Your task to perform on an android device: Search for "razer naga" on bestbuy, select the first entry, add it to the cart, then select checkout. Image 0: 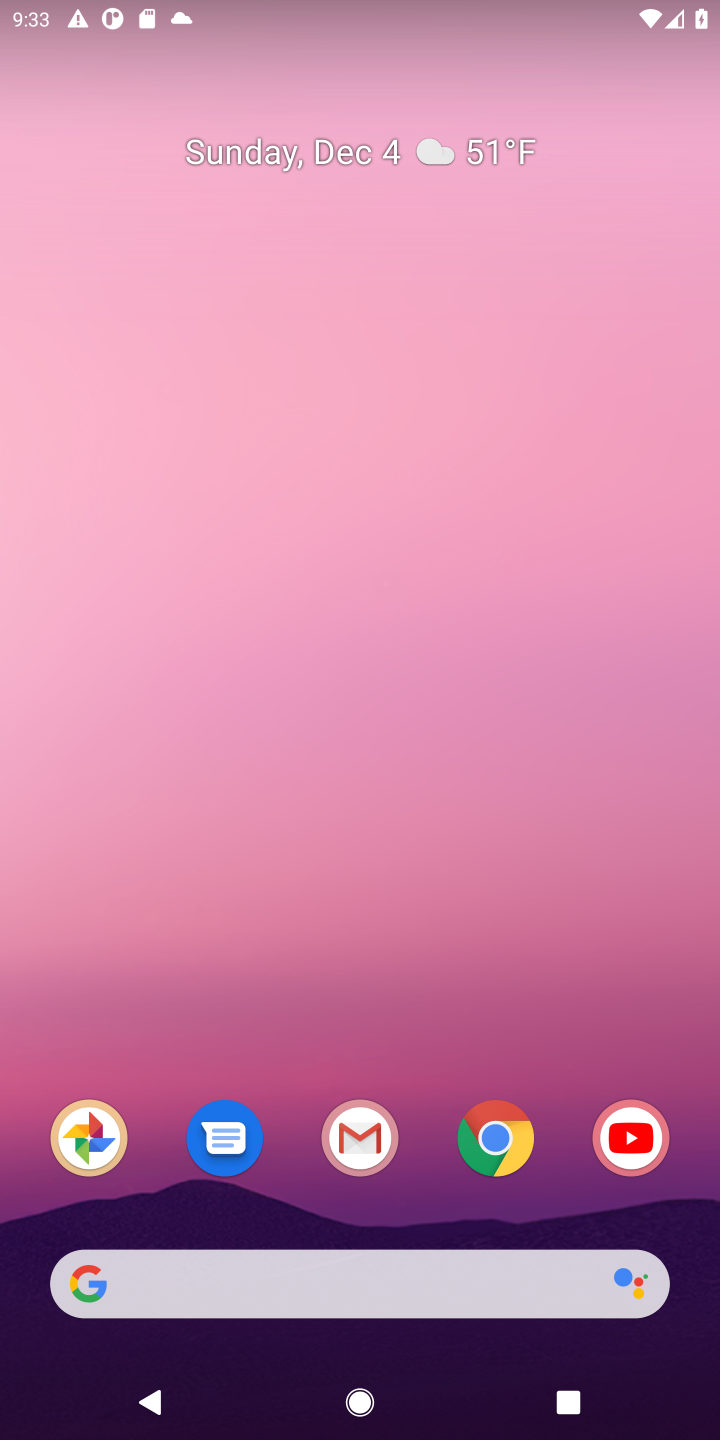
Step 0: click (480, 1133)
Your task to perform on an android device: Search for "razer naga" on bestbuy, select the first entry, add it to the cart, then select checkout. Image 1: 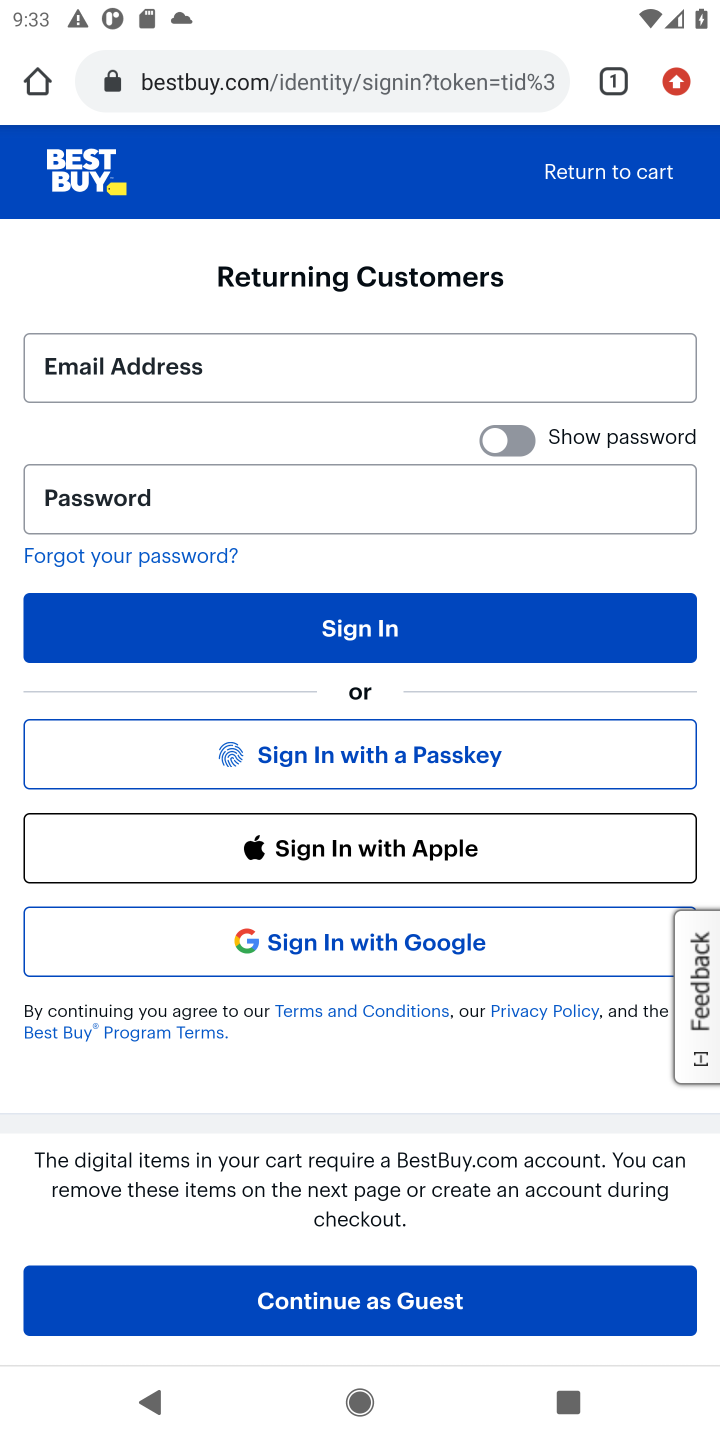
Step 1: press back button
Your task to perform on an android device: Search for "razer naga" on bestbuy, select the first entry, add it to the cart, then select checkout. Image 2: 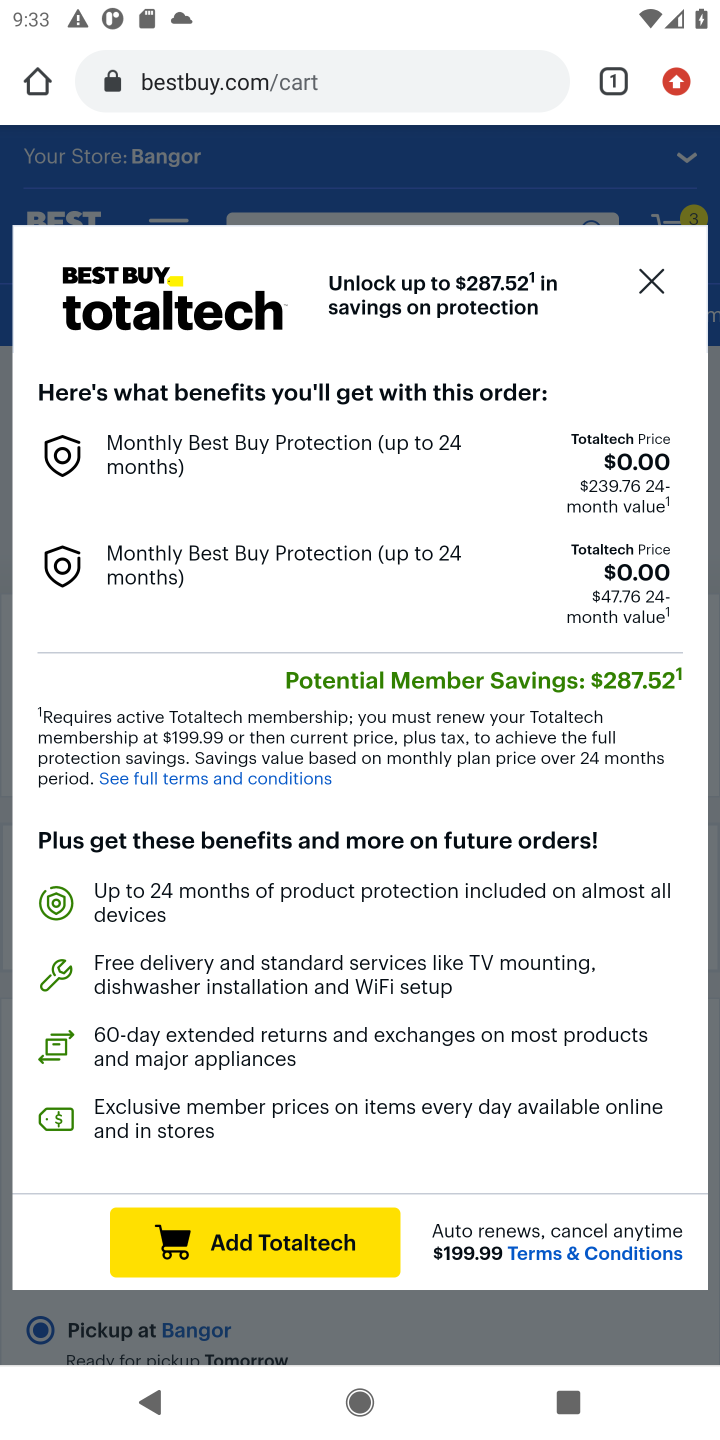
Step 2: click (652, 274)
Your task to perform on an android device: Search for "razer naga" on bestbuy, select the first entry, add it to the cart, then select checkout. Image 3: 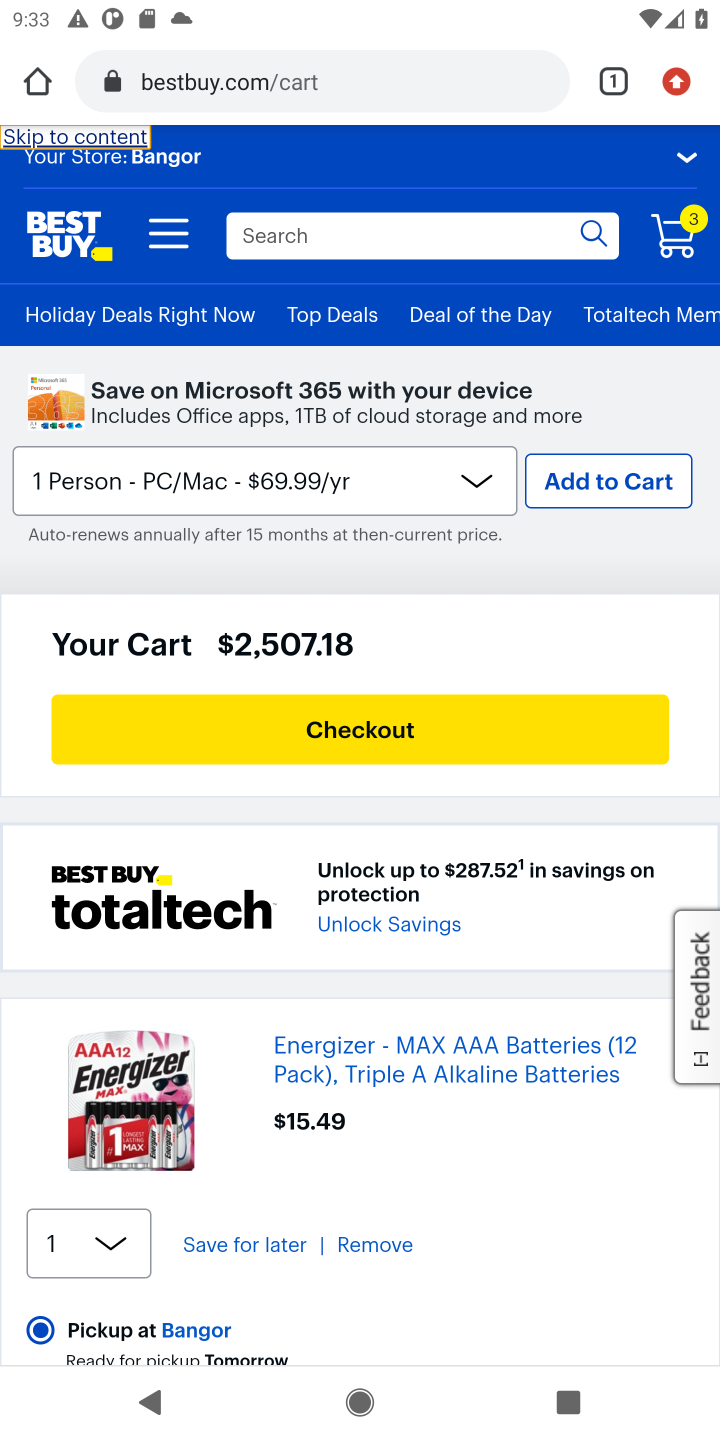
Step 3: click (455, 236)
Your task to perform on an android device: Search for "razer naga" on bestbuy, select the first entry, add it to the cart, then select checkout. Image 4: 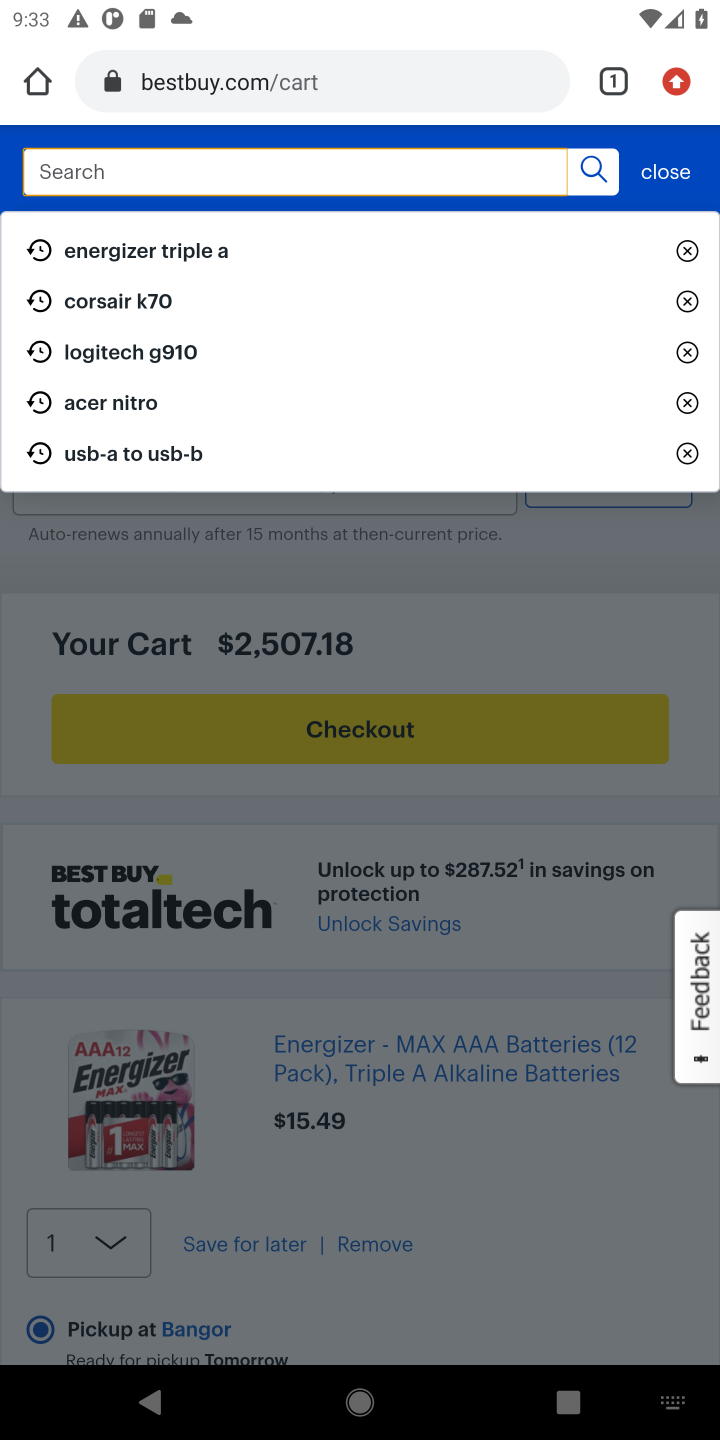
Step 4: type "razer naga"
Your task to perform on an android device: Search for "razer naga" on bestbuy, select the first entry, add it to the cart, then select checkout. Image 5: 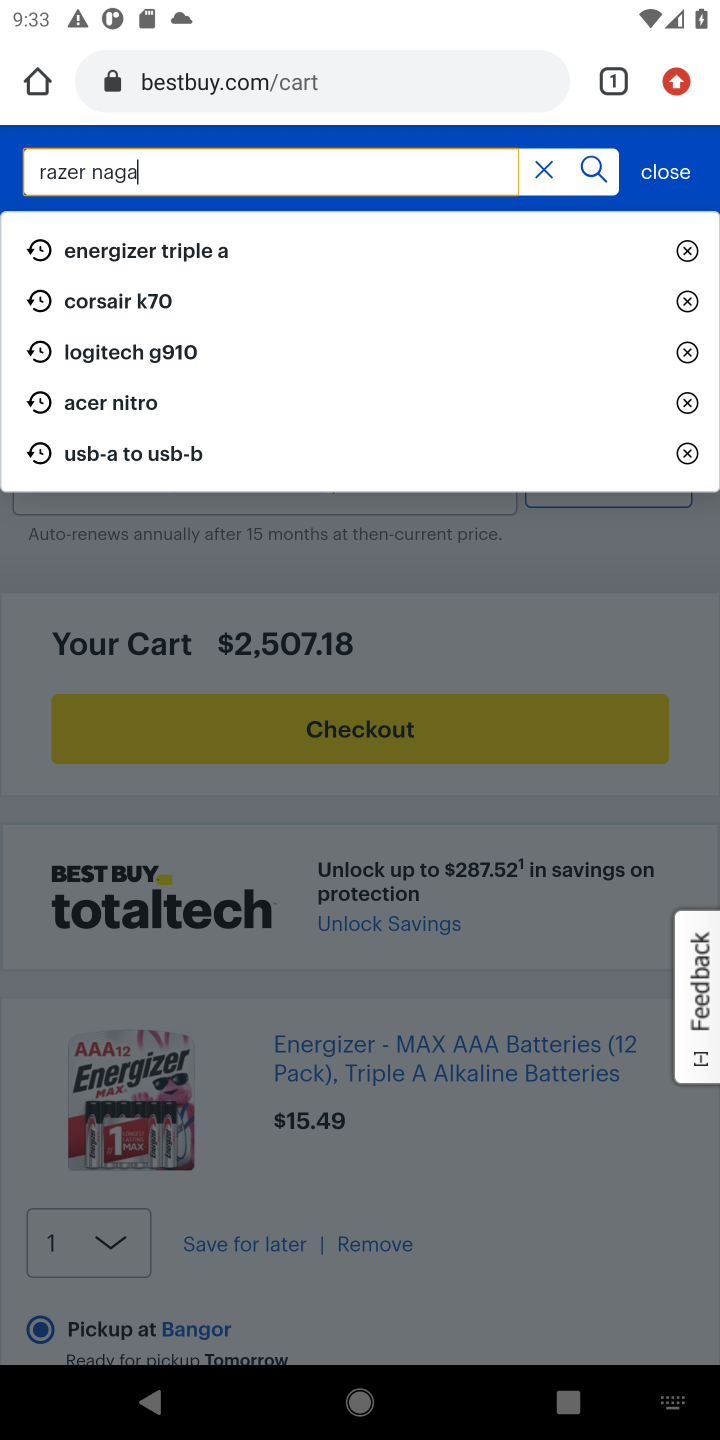
Step 5: press enter
Your task to perform on an android device: Search for "razer naga" on bestbuy, select the first entry, add it to the cart, then select checkout. Image 6: 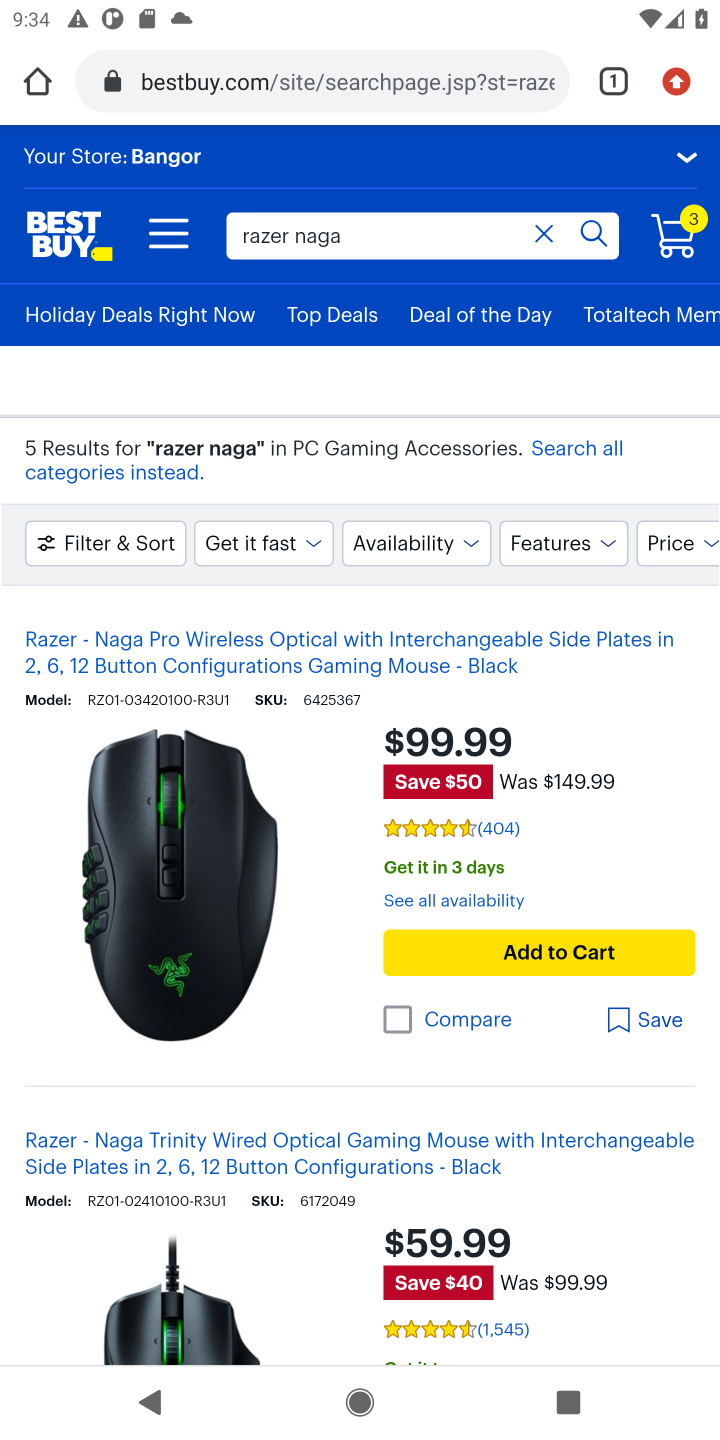
Step 6: click (111, 878)
Your task to perform on an android device: Search for "razer naga" on bestbuy, select the first entry, add it to the cart, then select checkout. Image 7: 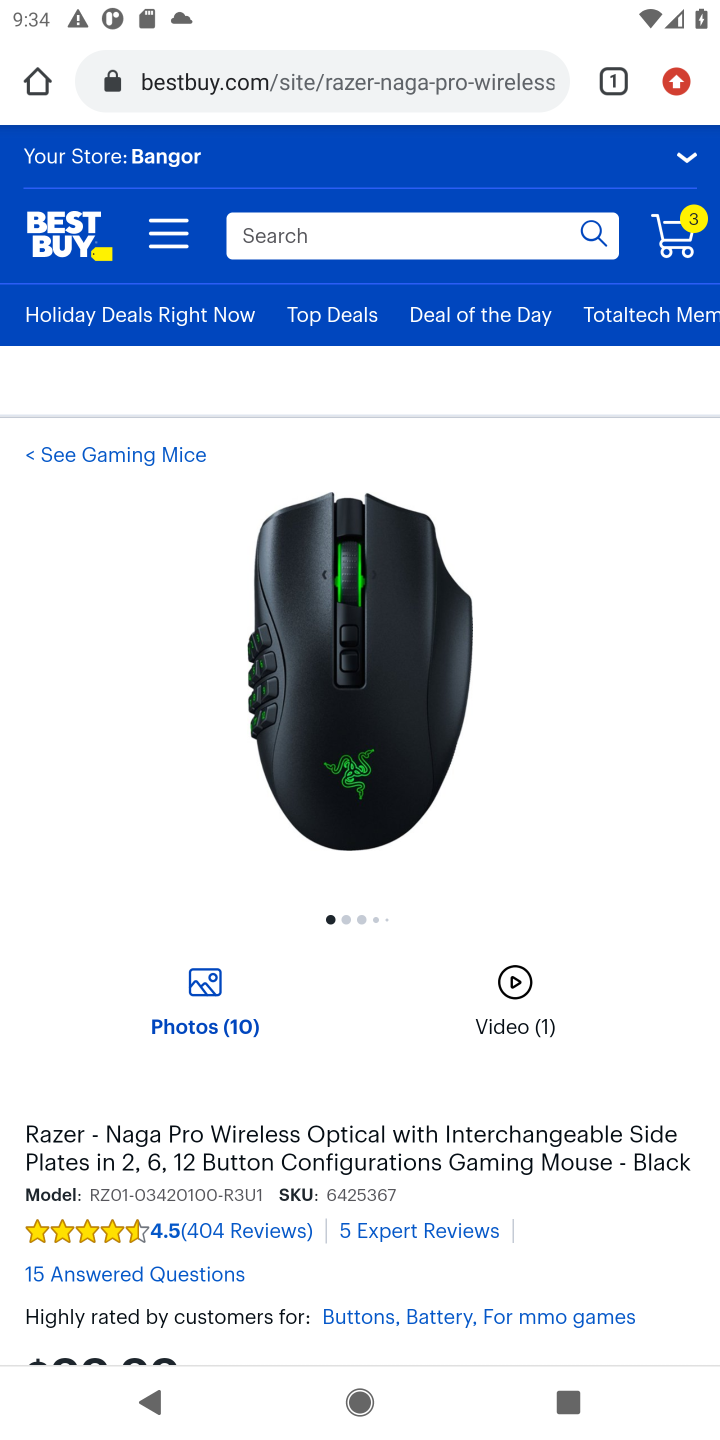
Step 7: drag from (334, 1050) to (422, 368)
Your task to perform on an android device: Search for "razer naga" on bestbuy, select the first entry, add it to the cart, then select checkout. Image 8: 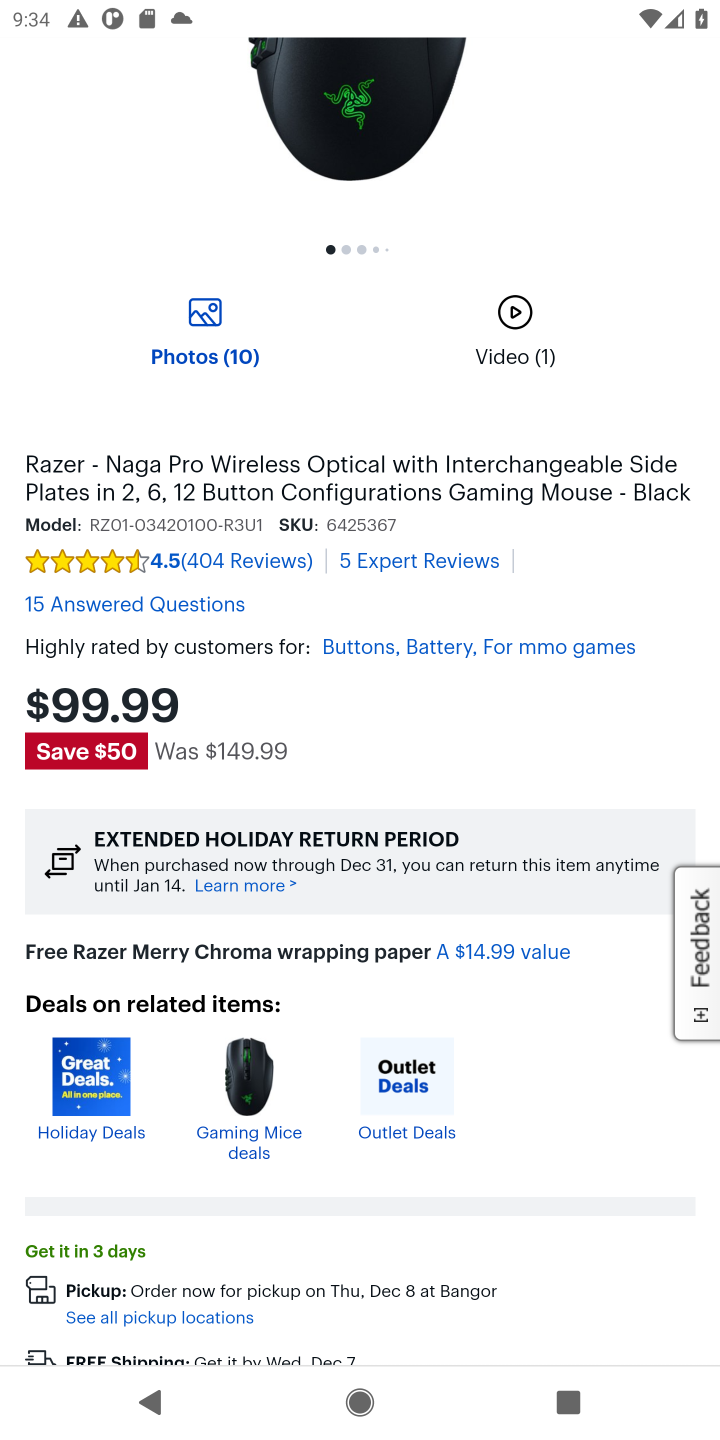
Step 8: drag from (608, 1027) to (567, 335)
Your task to perform on an android device: Search for "razer naga" on bestbuy, select the first entry, add it to the cart, then select checkout. Image 9: 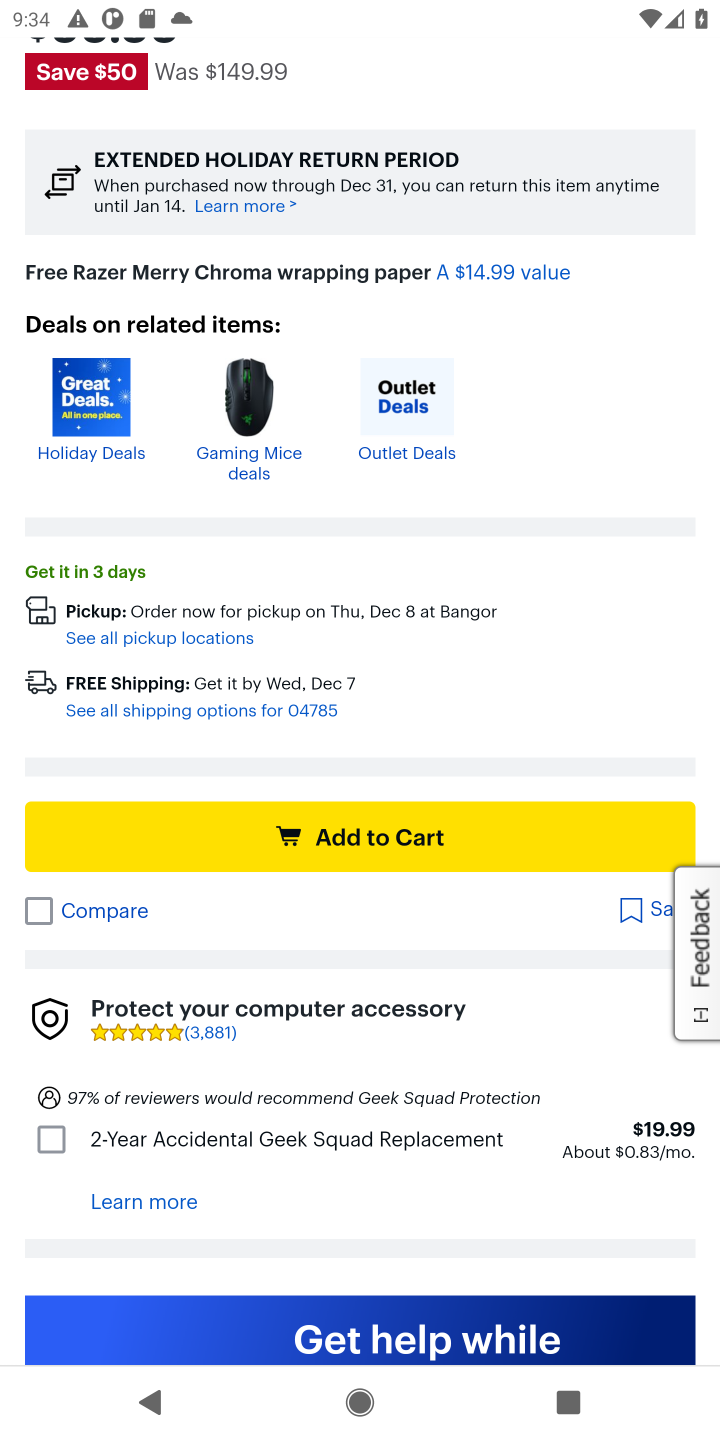
Step 9: click (369, 831)
Your task to perform on an android device: Search for "razer naga" on bestbuy, select the first entry, add it to the cart, then select checkout. Image 10: 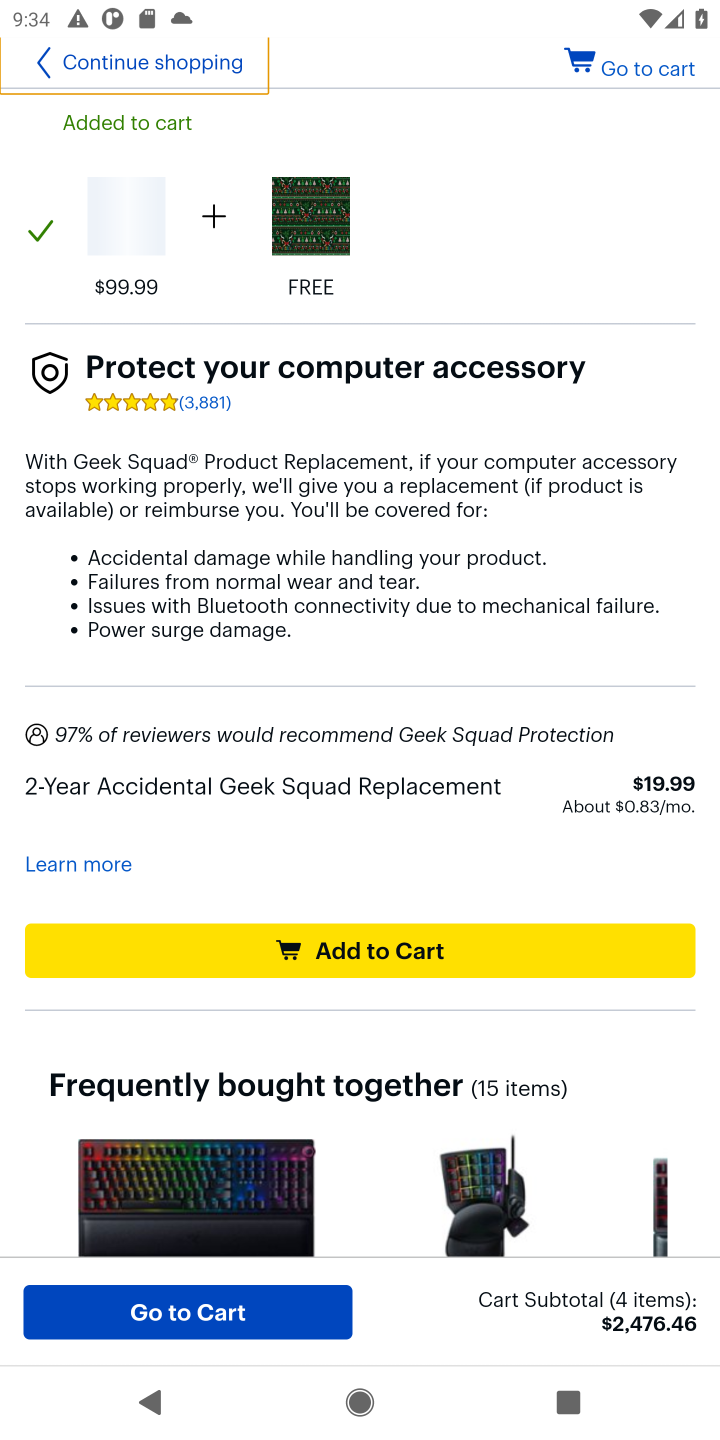
Step 10: click (189, 1311)
Your task to perform on an android device: Search for "razer naga" on bestbuy, select the first entry, add it to the cart, then select checkout. Image 11: 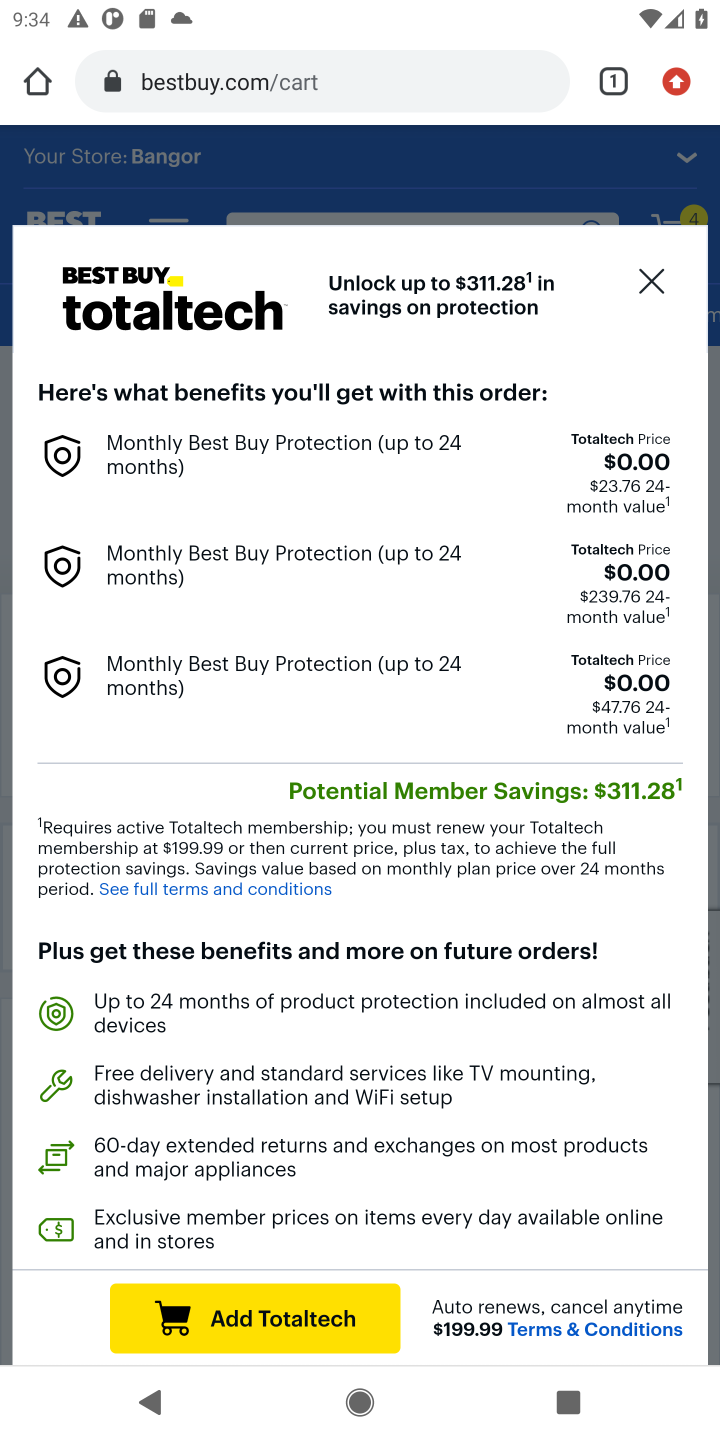
Step 11: click (649, 270)
Your task to perform on an android device: Search for "razer naga" on bestbuy, select the first entry, add it to the cart, then select checkout. Image 12: 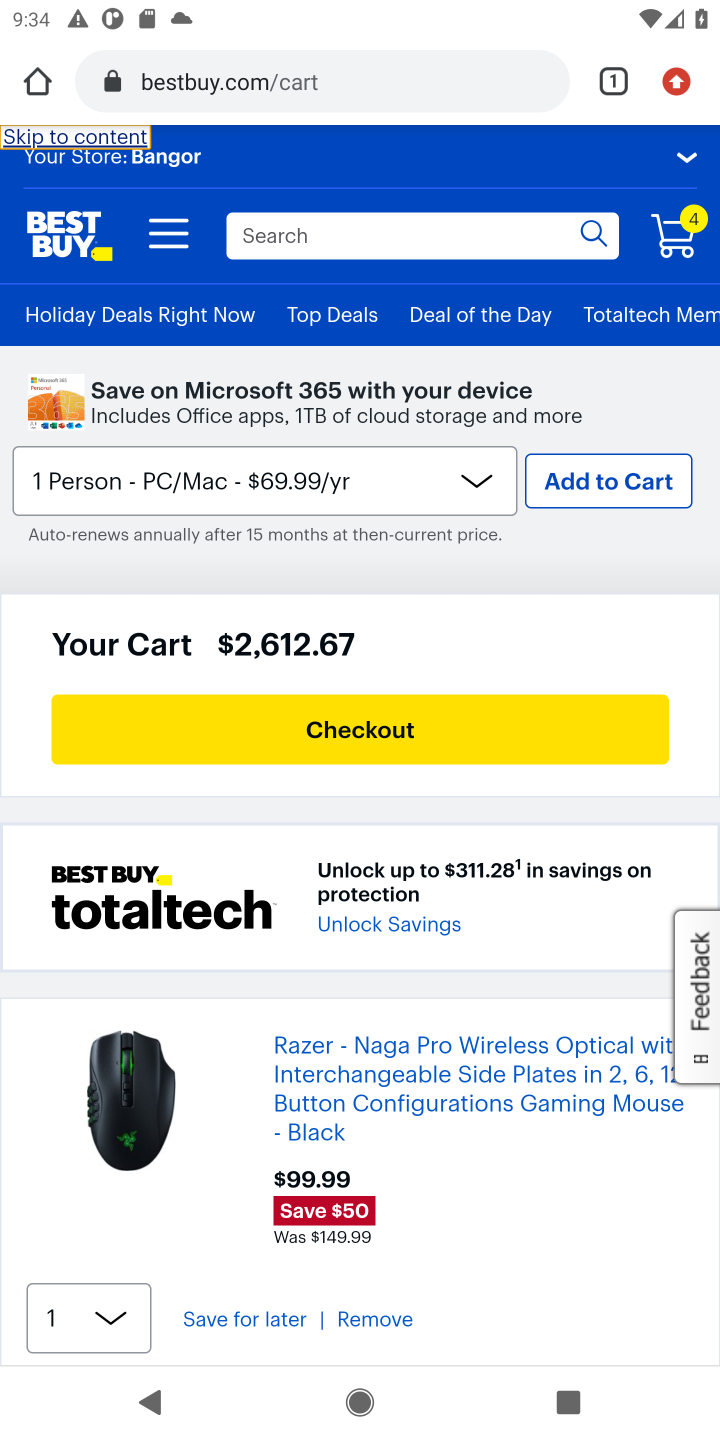
Step 12: click (360, 734)
Your task to perform on an android device: Search for "razer naga" on bestbuy, select the first entry, add it to the cart, then select checkout. Image 13: 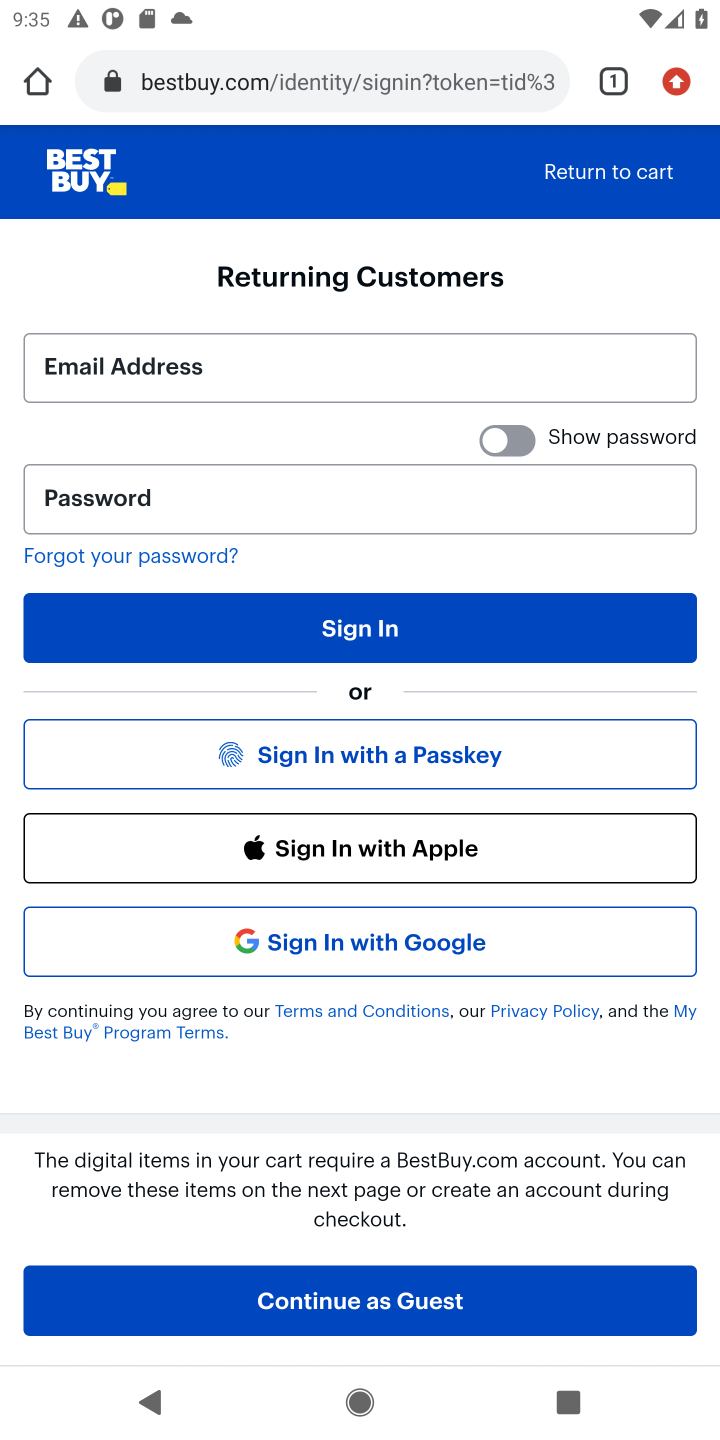
Step 13: task complete